Your task to perform on an android device: turn off wifi Image 0: 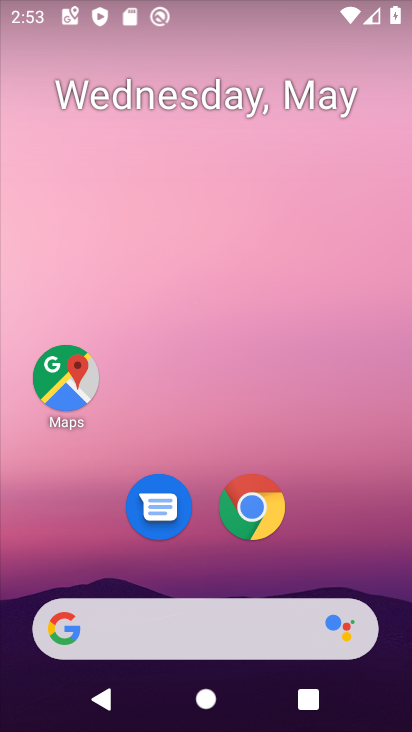
Step 0: drag from (333, 542) to (242, 21)
Your task to perform on an android device: turn off wifi Image 1: 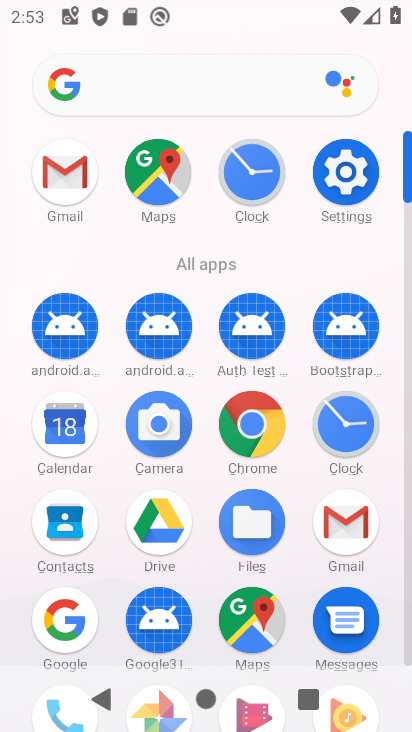
Step 1: click (344, 168)
Your task to perform on an android device: turn off wifi Image 2: 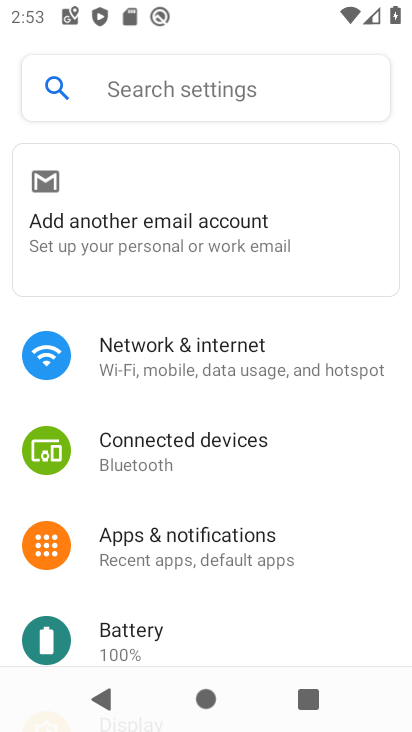
Step 2: click (159, 343)
Your task to perform on an android device: turn off wifi Image 3: 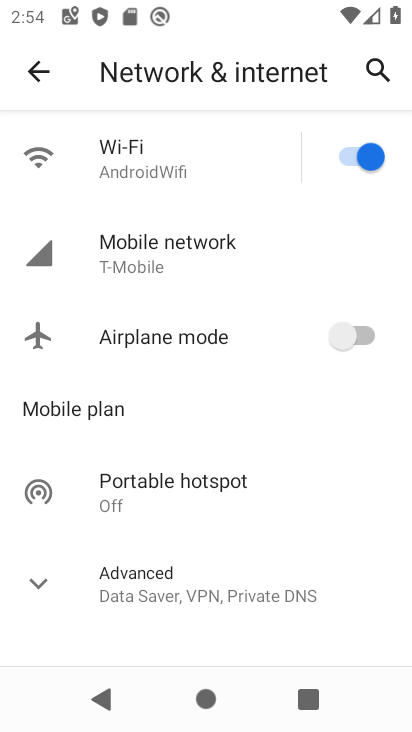
Step 3: click (350, 157)
Your task to perform on an android device: turn off wifi Image 4: 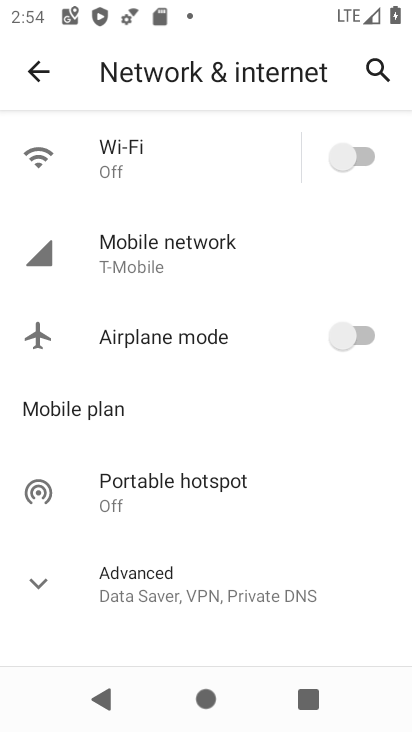
Step 4: task complete